Your task to perform on an android device: empty trash in the gmail app Image 0: 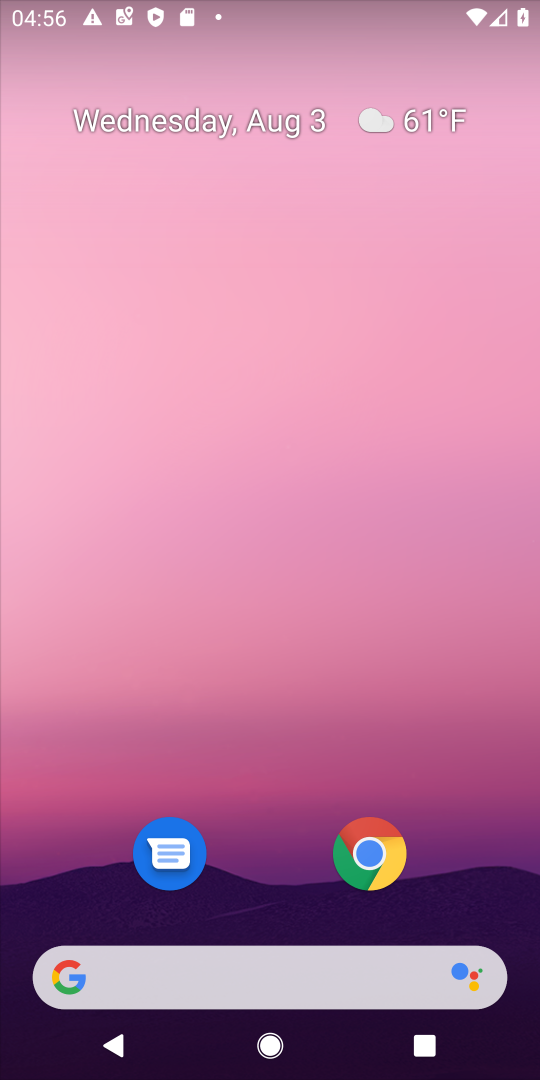
Step 0: drag from (275, 910) to (275, 121)
Your task to perform on an android device: empty trash in the gmail app Image 1: 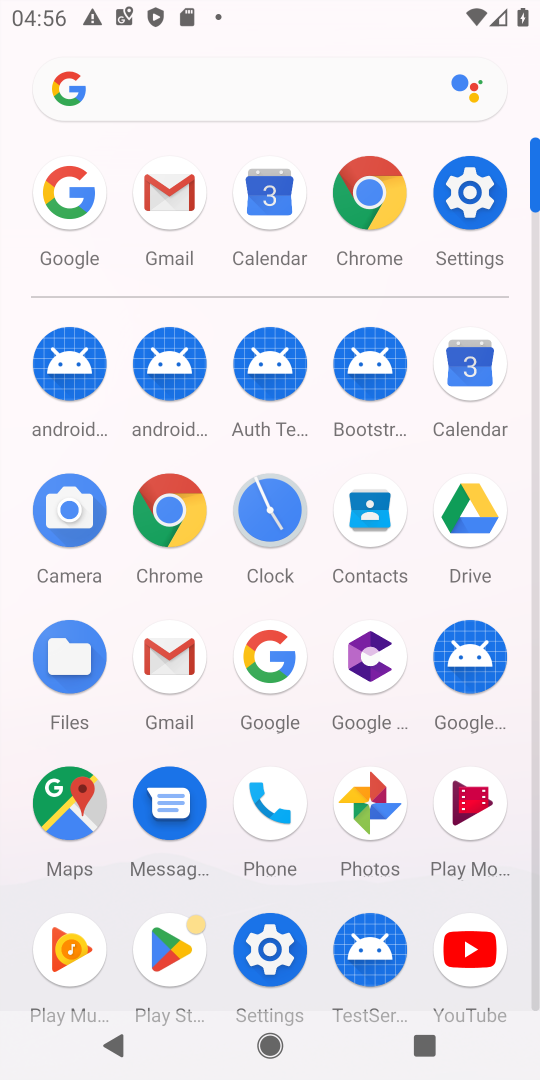
Step 1: click (182, 656)
Your task to perform on an android device: empty trash in the gmail app Image 2: 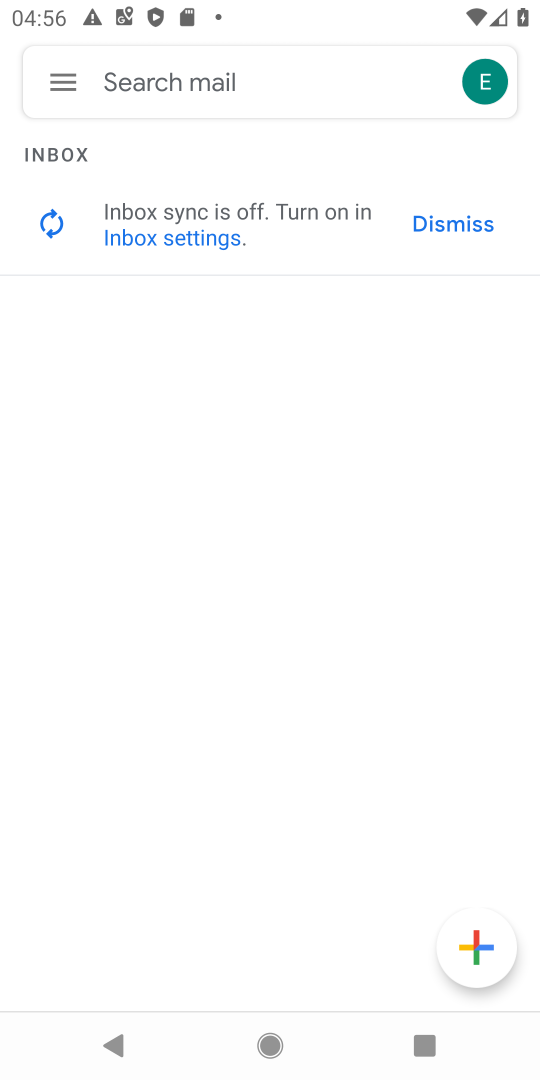
Step 2: click (60, 78)
Your task to perform on an android device: empty trash in the gmail app Image 3: 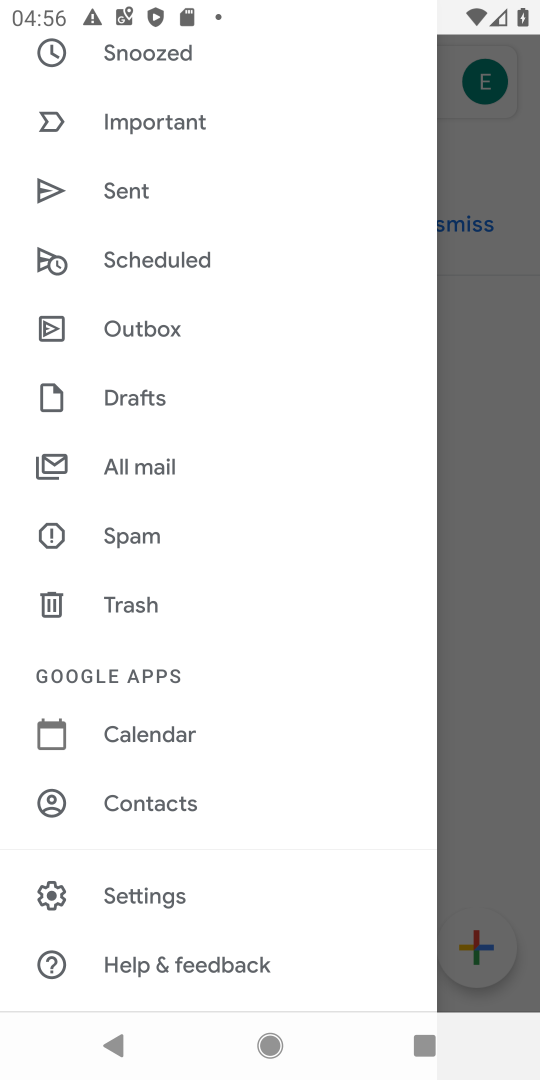
Step 3: click (130, 604)
Your task to perform on an android device: empty trash in the gmail app Image 4: 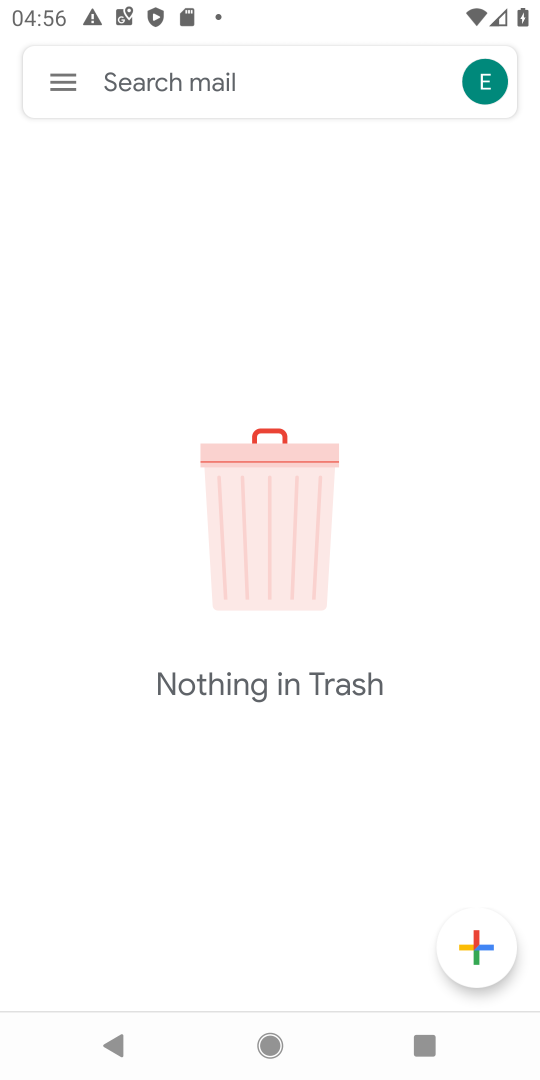
Step 4: task complete